Your task to perform on an android device: Go to Amazon Image 0: 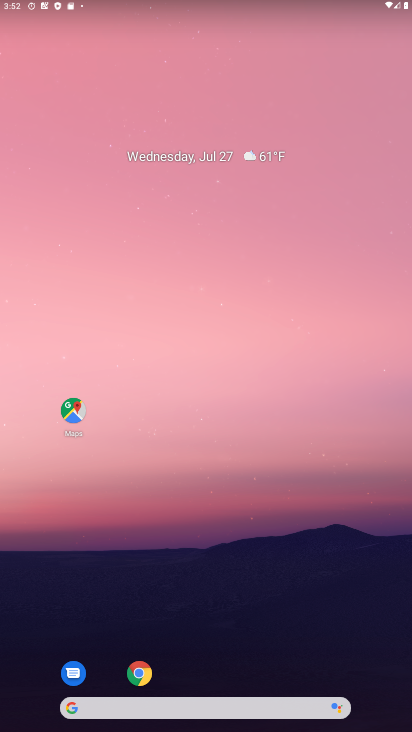
Step 0: click (108, 709)
Your task to perform on an android device: Go to Amazon Image 1: 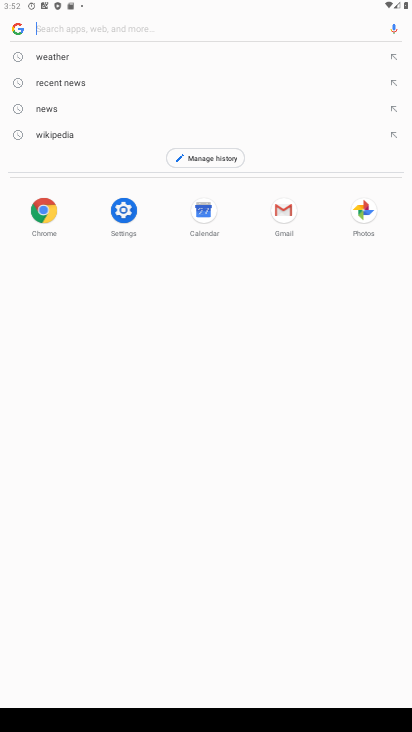
Step 1: type "Amazon"
Your task to perform on an android device: Go to Amazon Image 2: 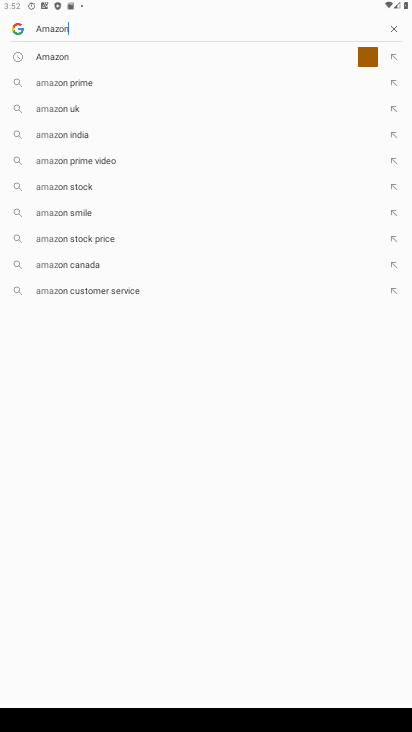
Step 2: type ""
Your task to perform on an android device: Go to Amazon Image 3: 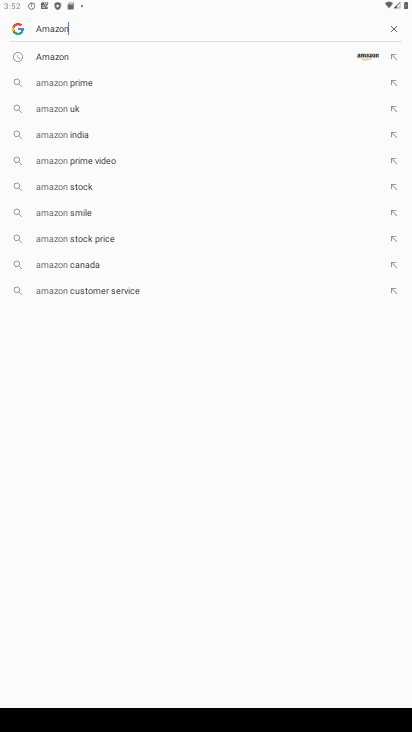
Step 3: click (50, 59)
Your task to perform on an android device: Go to Amazon Image 4: 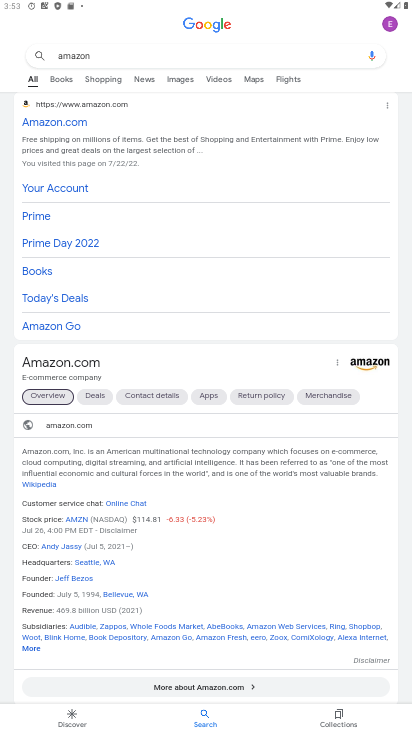
Step 4: task complete